Your task to perform on an android device: Open display settings Image 0: 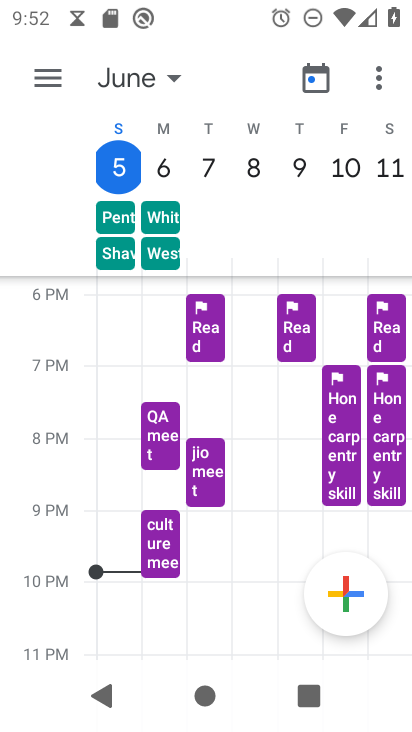
Step 0: press home button
Your task to perform on an android device: Open display settings Image 1: 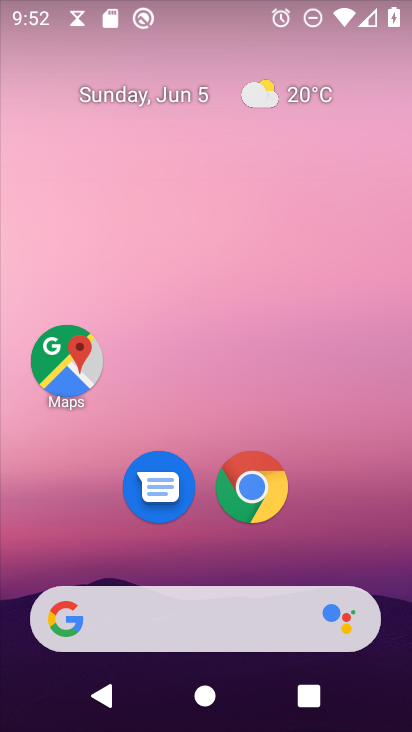
Step 1: drag from (316, 497) to (276, 123)
Your task to perform on an android device: Open display settings Image 2: 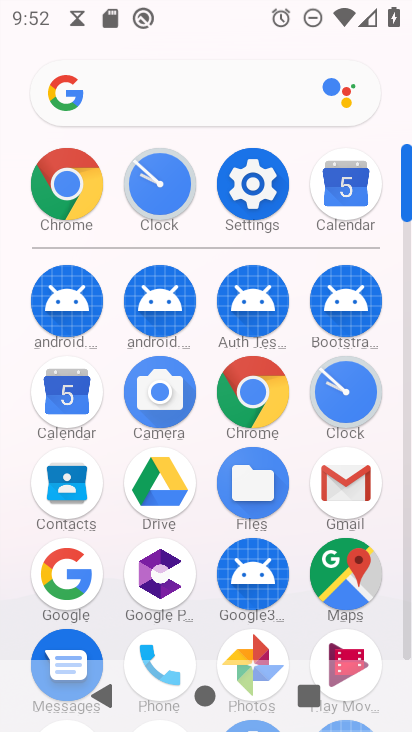
Step 2: click (255, 162)
Your task to perform on an android device: Open display settings Image 3: 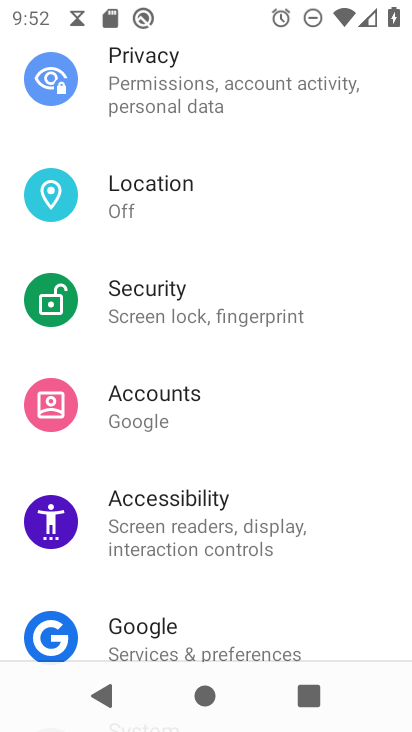
Step 3: drag from (198, 155) to (202, 485)
Your task to perform on an android device: Open display settings Image 4: 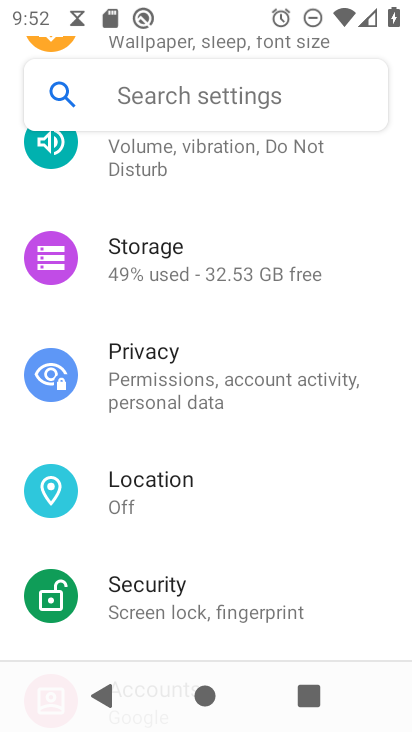
Step 4: drag from (142, 225) to (143, 433)
Your task to perform on an android device: Open display settings Image 5: 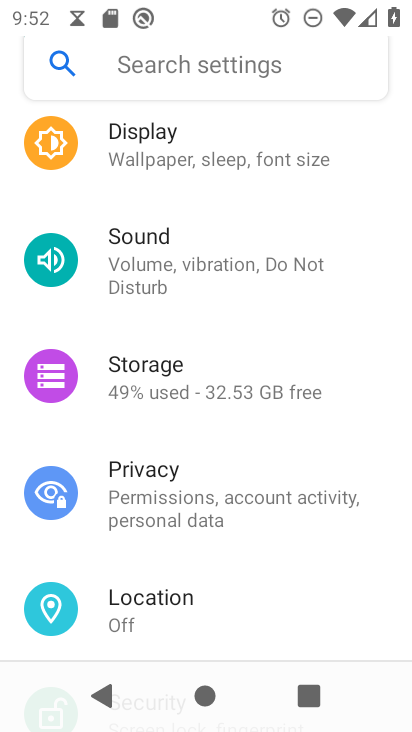
Step 5: click (153, 143)
Your task to perform on an android device: Open display settings Image 6: 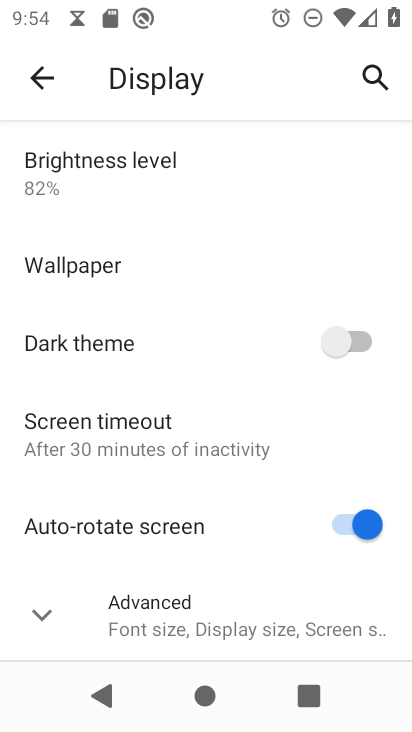
Step 6: task complete